Your task to perform on an android device: delete location history Image 0: 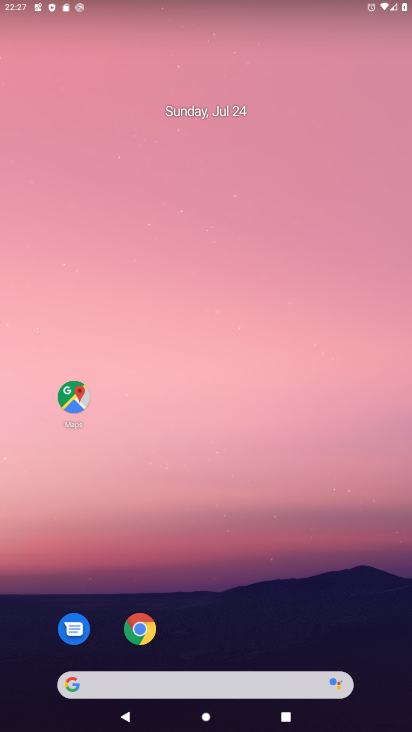
Step 0: drag from (172, 642) to (239, 172)
Your task to perform on an android device: delete location history Image 1: 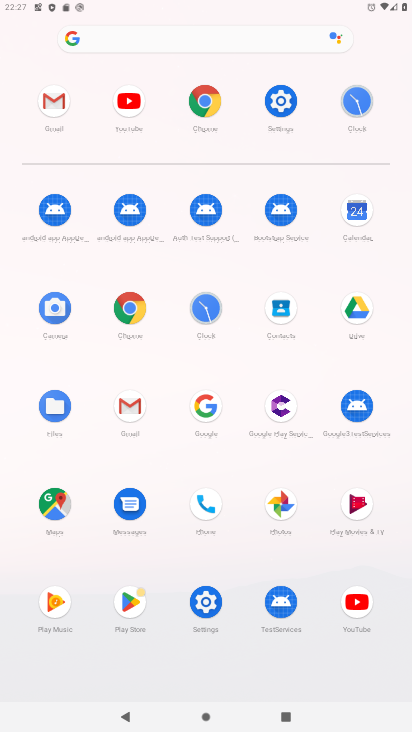
Step 1: click (204, 600)
Your task to perform on an android device: delete location history Image 2: 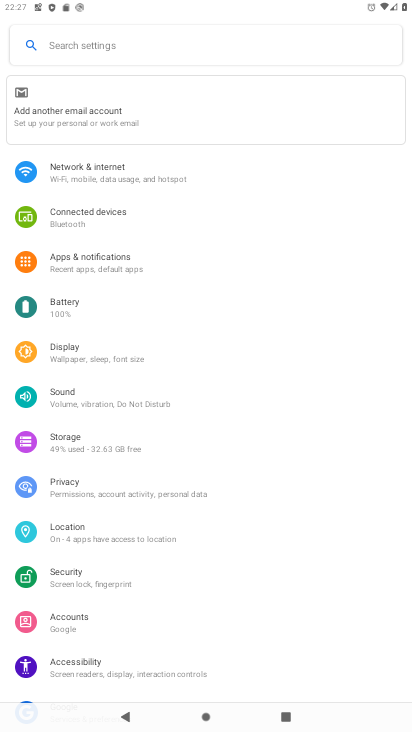
Step 2: drag from (176, 657) to (280, 246)
Your task to perform on an android device: delete location history Image 3: 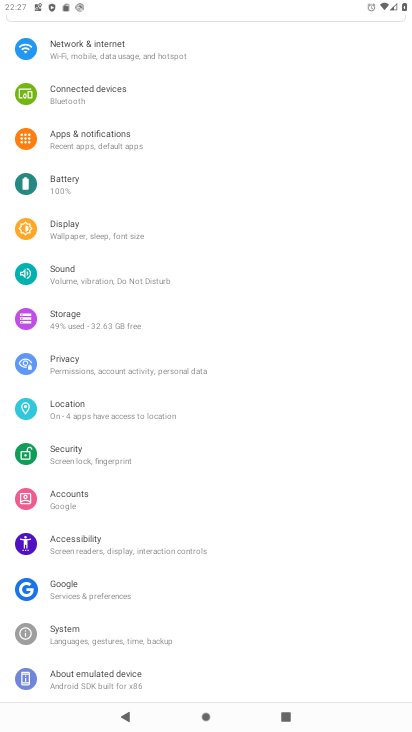
Step 3: click (59, 407)
Your task to perform on an android device: delete location history Image 4: 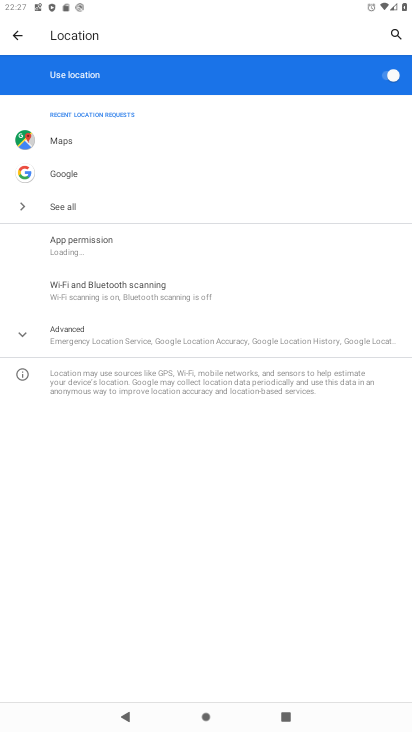
Step 4: click (210, 326)
Your task to perform on an android device: delete location history Image 5: 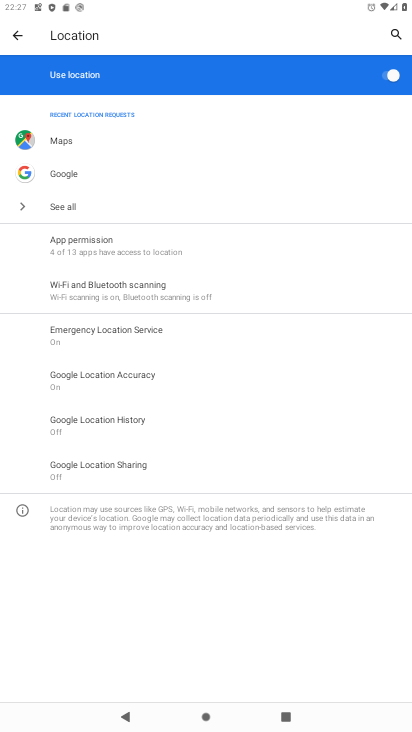
Step 5: click (96, 421)
Your task to perform on an android device: delete location history Image 6: 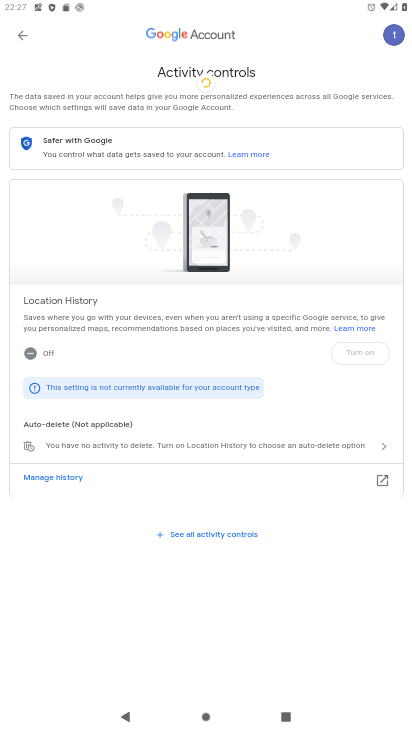
Step 6: drag from (188, 357) to (205, 688)
Your task to perform on an android device: delete location history Image 7: 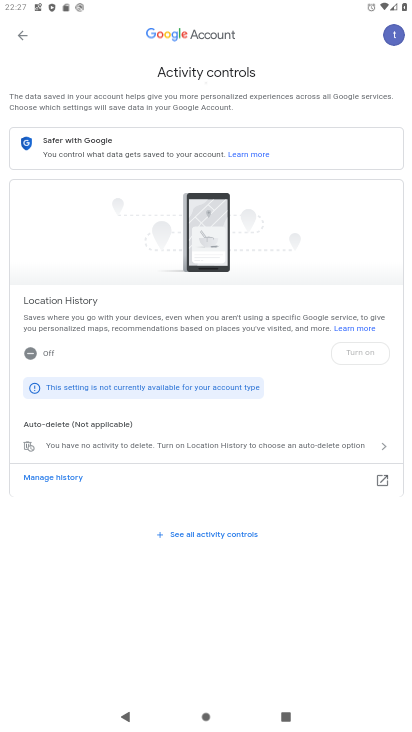
Step 7: click (30, 449)
Your task to perform on an android device: delete location history Image 8: 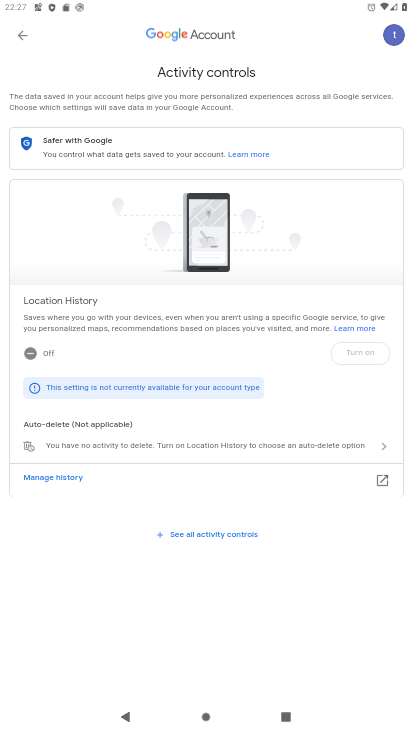
Step 8: click (36, 445)
Your task to perform on an android device: delete location history Image 9: 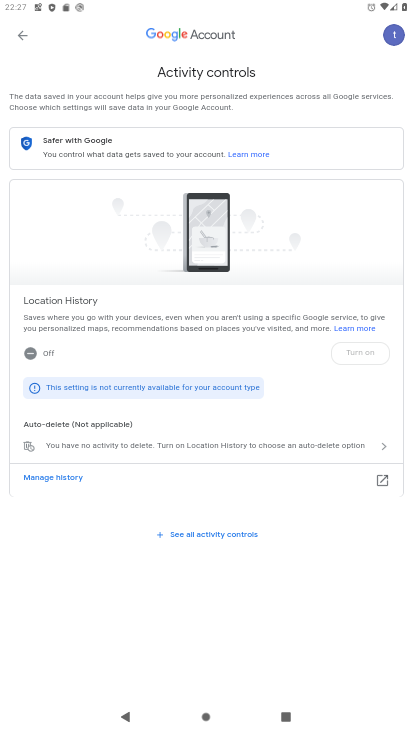
Step 9: click (28, 447)
Your task to perform on an android device: delete location history Image 10: 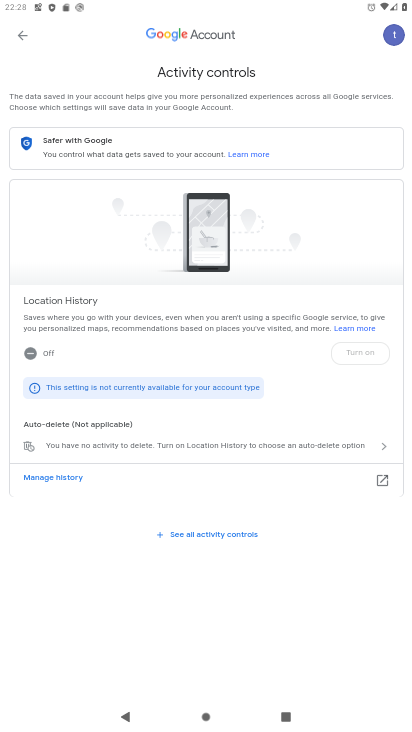
Step 10: click (27, 456)
Your task to perform on an android device: delete location history Image 11: 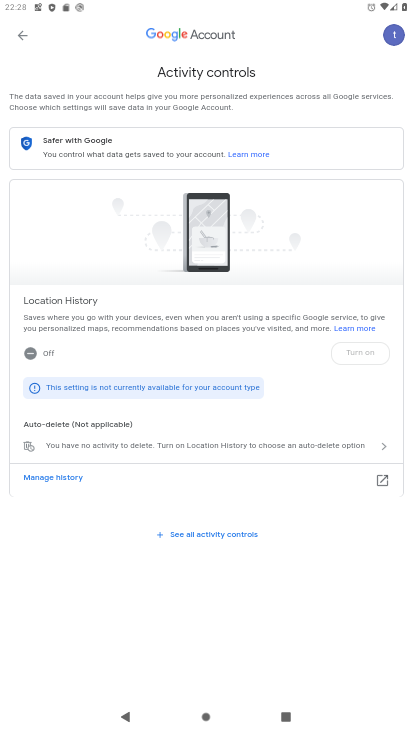
Step 11: click (28, 452)
Your task to perform on an android device: delete location history Image 12: 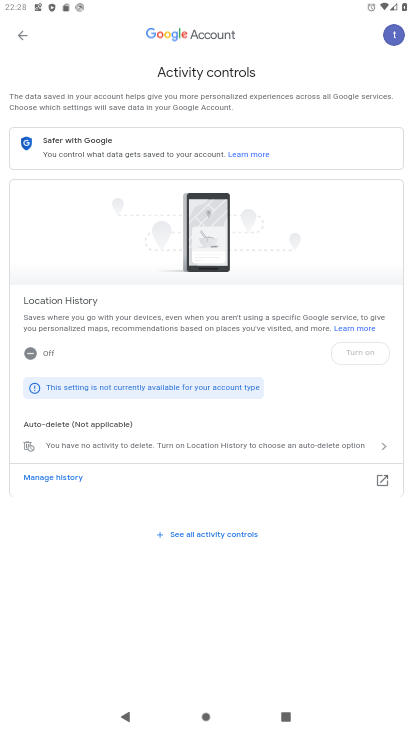
Step 12: click (30, 450)
Your task to perform on an android device: delete location history Image 13: 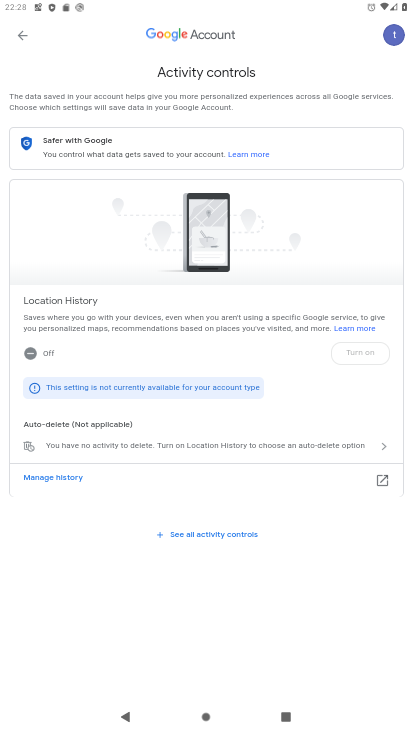
Step 13: click (30, 450)
Your task to perform on an android device: delete location history Image 14: 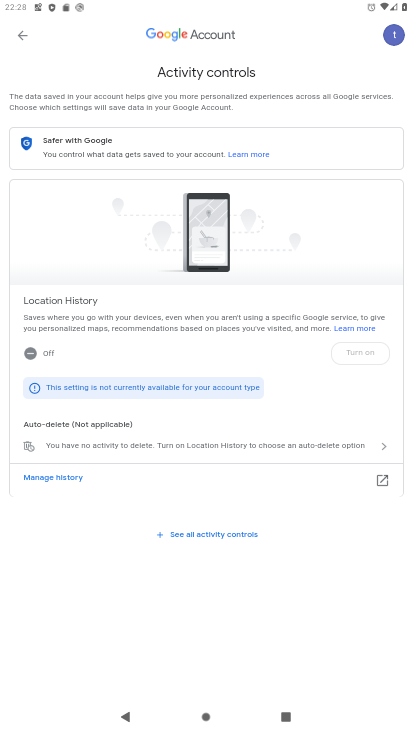
Step 14: click (33, 448)
Your task to perform on an android device: delete location history Image 15: 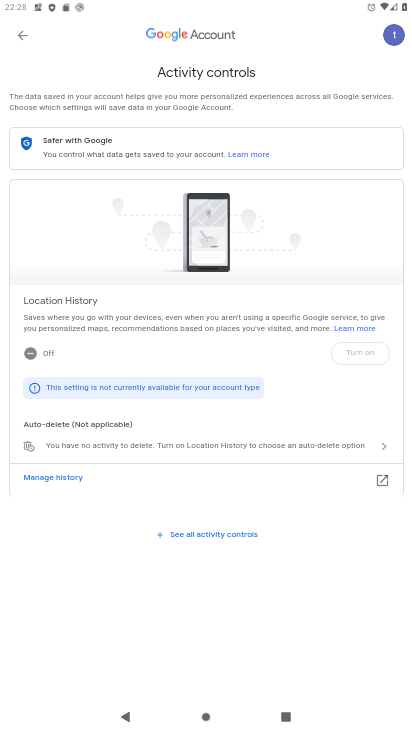
Step 15: task complete